Your task to perform on an android device: choose inbox layout in the gmail app Image 0: 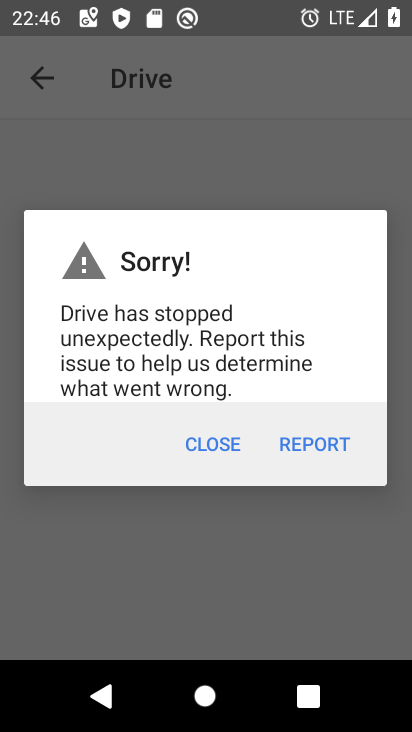
Step 0: press back button
Your task to perform on an android device: choose inbox layout in the gmail app Image 1: 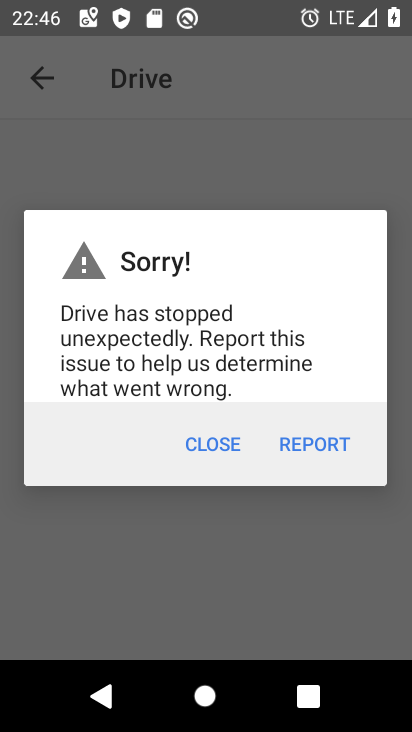
Step 1: press home button
Your task to perform on an android device: choose inbox layout in the gmail app Image 2: 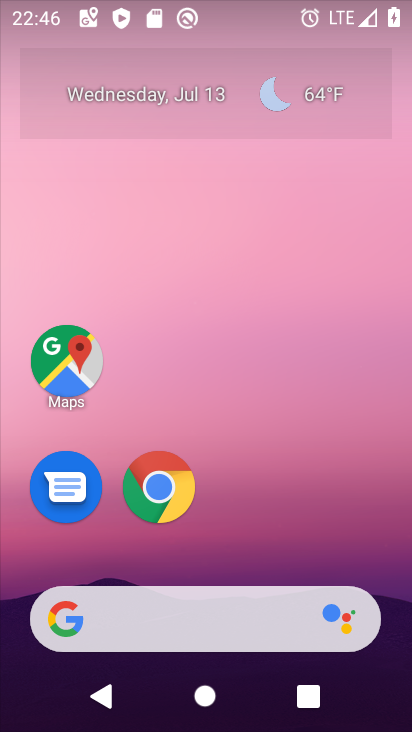
Step 2: drag from (270, 552) to (289, 0)
Your task to perform on an android device: choose inbox layout in the gmail app Image 3: 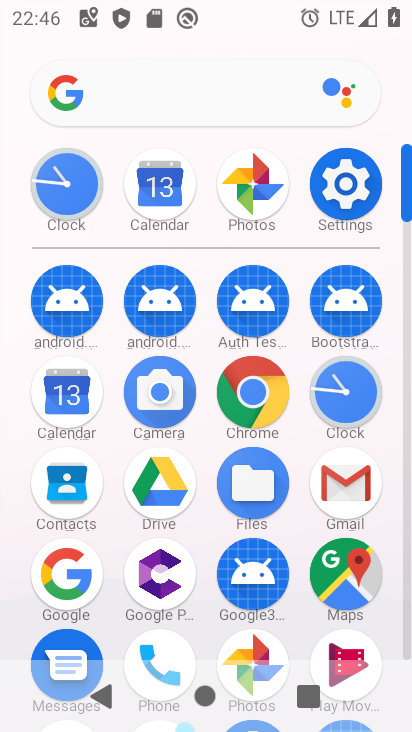
Step 3: click (342, 491)
Your task to perform on an android device: choose inbox layout in the gmail app Image 4: 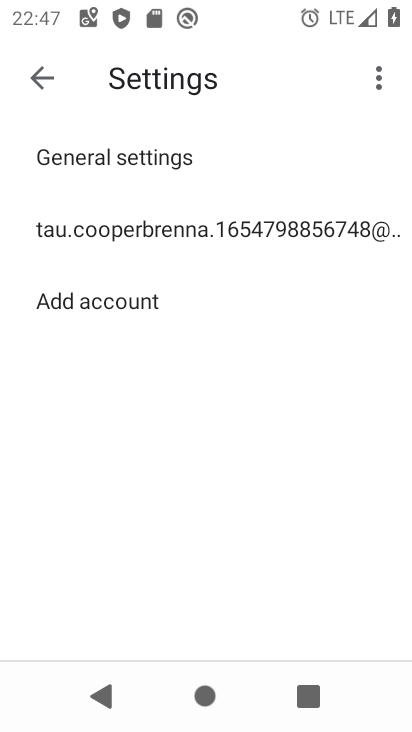
Step 4: click (189, 219)
Your task to perform on an android device: choose inbox layout in the gmail app Image 5: 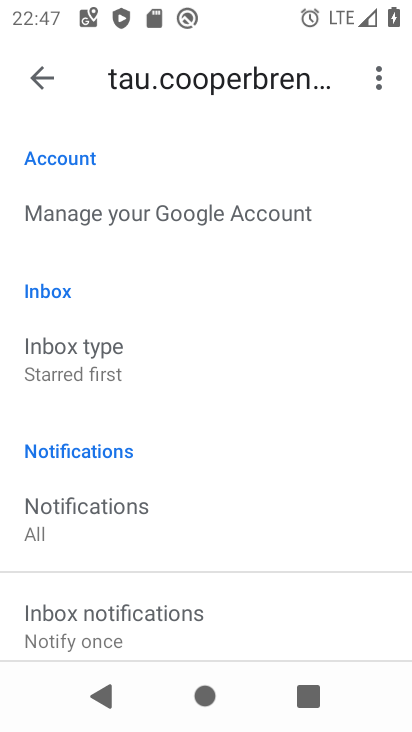
Step 5: click (108, 351)
Your task to perform on an android device: choose inbox layout in the gmail app Image 6: 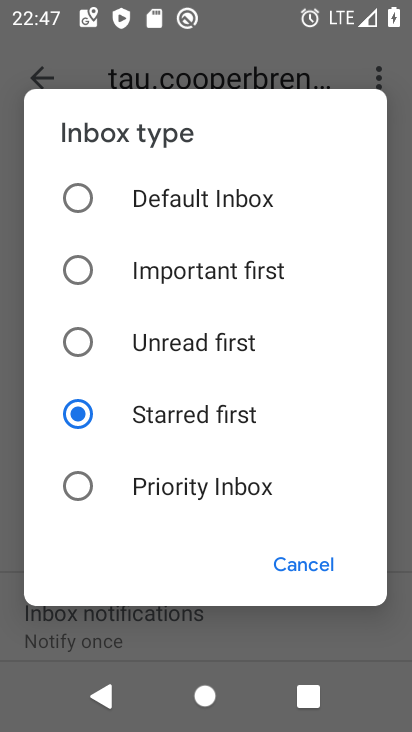
Step 6: click (85, 192)
Your task to perform on an android device: choose inbox layout in the gmail app Image 7: 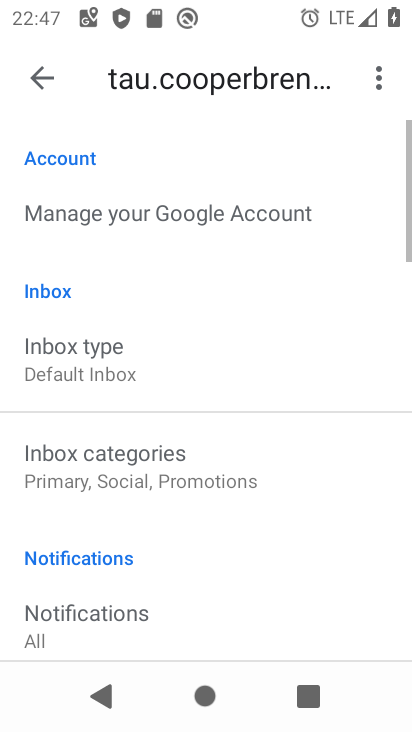
Step 7: task complete